Your task to perform on an android device: change the clock display to digital Image 0: 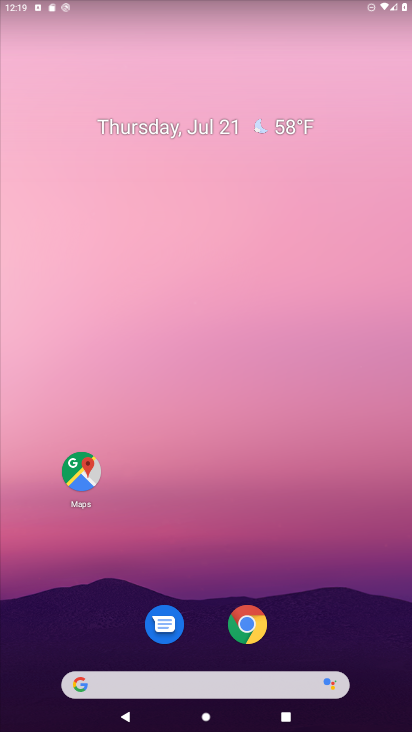
Step 0: drag from (204, 592) to (213, 204)
Your task to perform on an android device: change the clock display to digital Image 1: 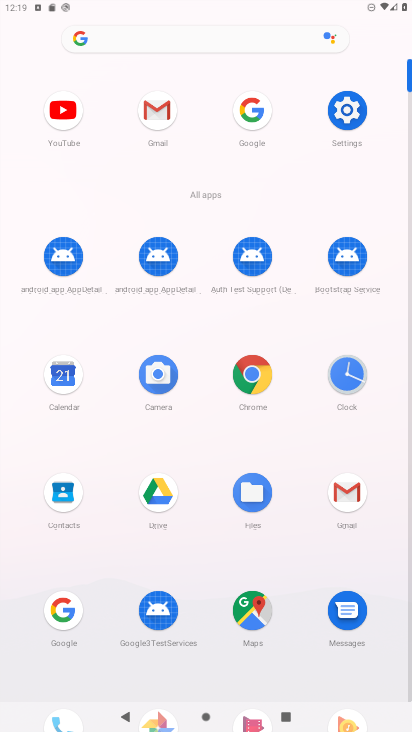
Step 1: click (323, 380)
Your task to perform on an android device: change the clock display to digital Image 2: 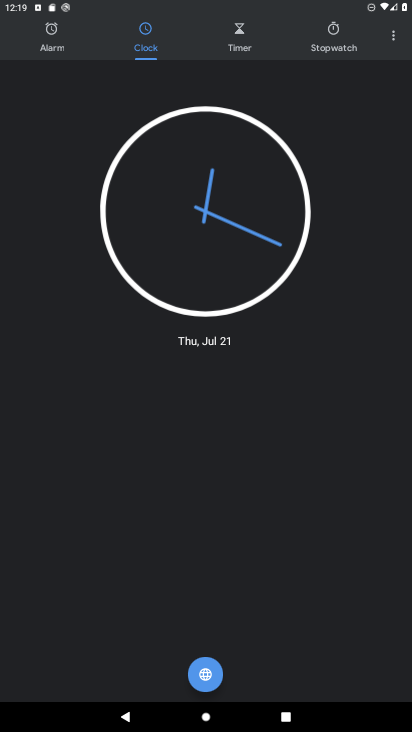
Step 2: click (390, 40)
Your task to perform on an android device: change the clock display to digital Image 3: 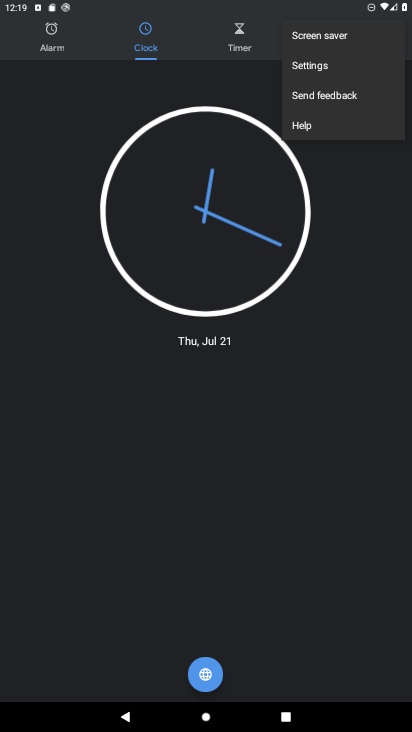
Step 3: click (350, 66)
Your task to perform on an android device: change the clock display to digital Image 4: 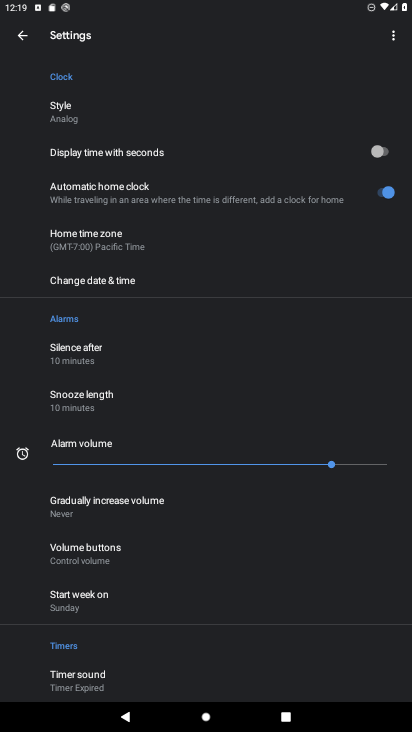
Step 4: click (81, 115)
Your task to perform on an android device: change the clock display to digital Image 5: 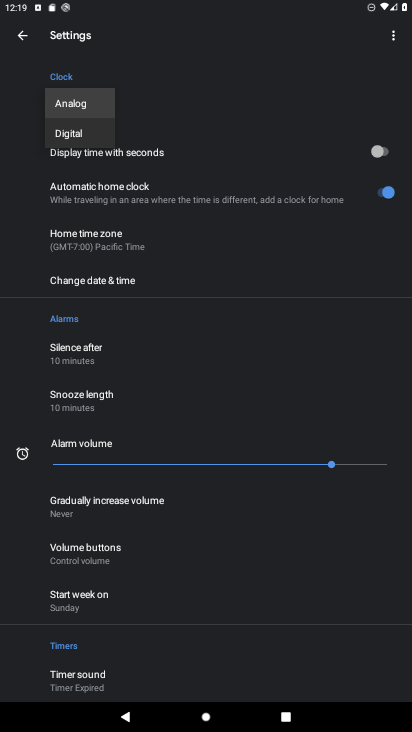
Step 5: click (89, 132)
Your task to perform on an android device: change the clock display to digital Image 6: 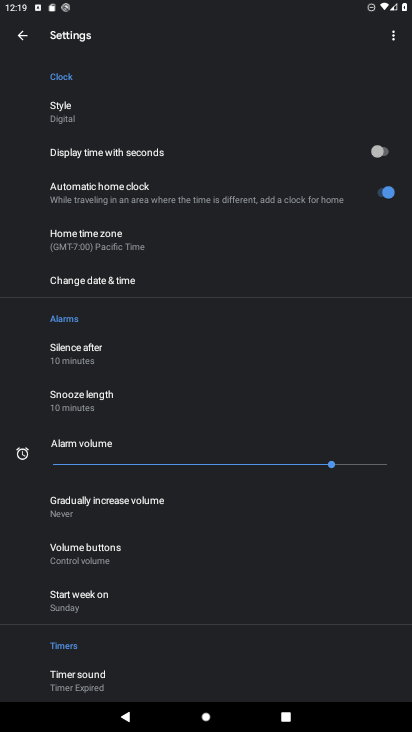
Step 6: task complete